Your task to perform on an android device: Open Google Maps Image 0: 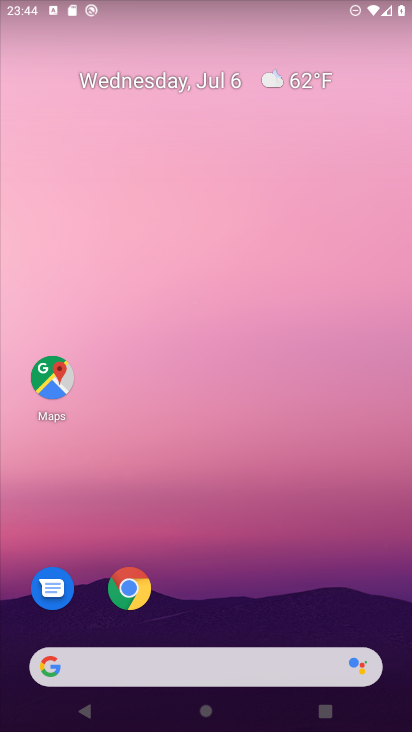
Step 0: click (50, 376)
Your task to perform on an android device: Open Google Maps Image 1: 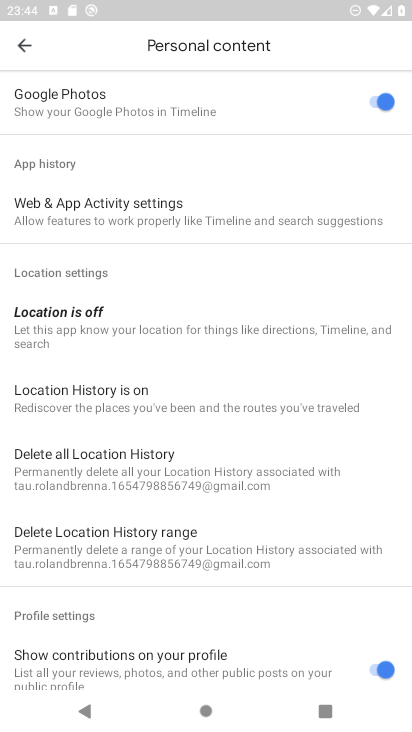
Step 1: task complete